Your task to perform on an android device: toggle notifications settings in the gmail app Image 0: 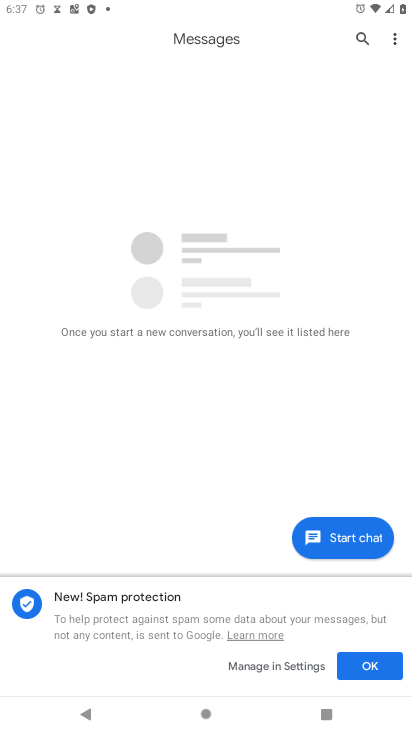
Step 0: press home button
Your task to perform on an android device: toggle notifications settings in the gmail app Image 1: 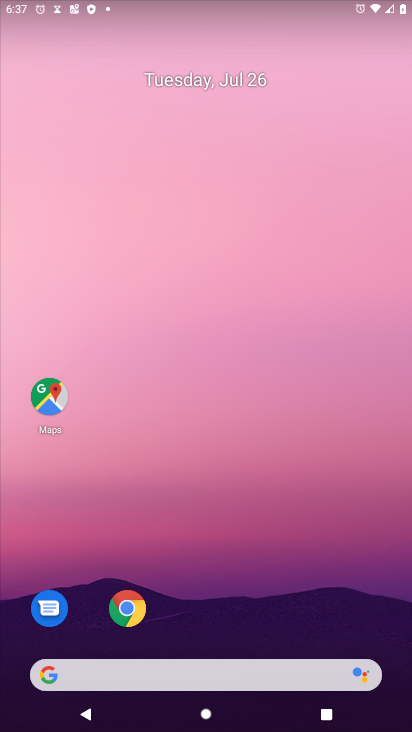
Step 1: drag from (231, 618) to (284, 30)
Your task to perform on an android device: toggle notifications settings in the gmail app Image 2: 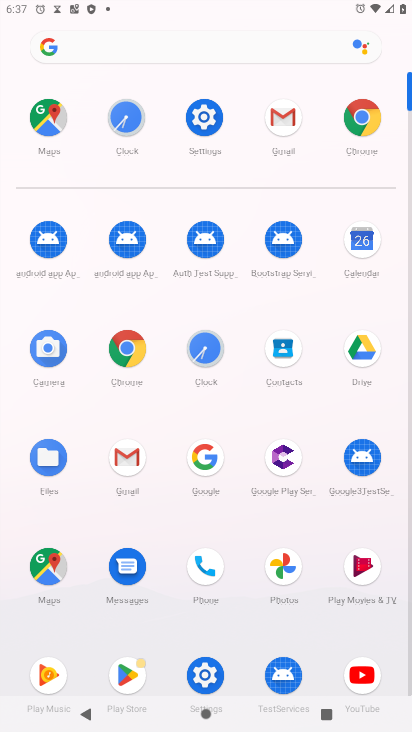
Step 2: click (272, 120)
Your task to perform on an android device: toggle notifications settings in the gmail app Image 3: 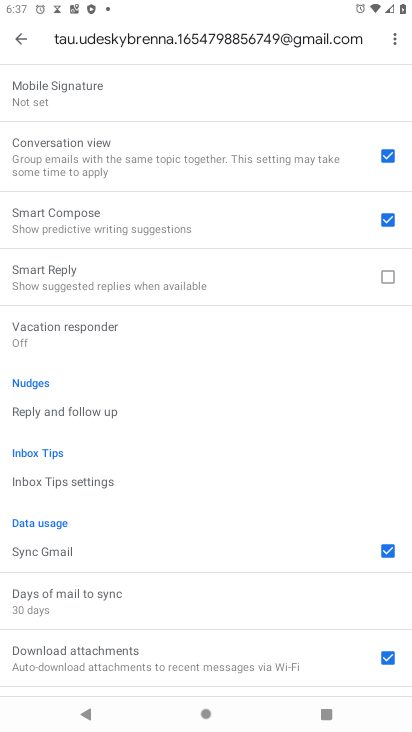
Step 3: drag from (175, 100) to (157, 603)
Your task to perform on an android device: toggle notifications settings in the gmail app Image 4: 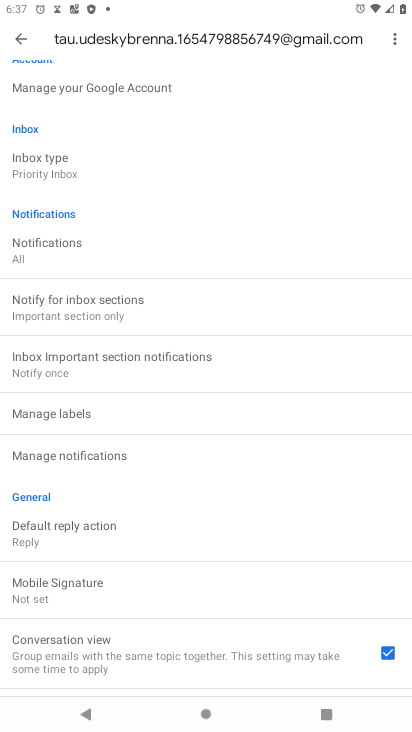
Step 4: click (60, 451)
Your task to perform on an android device: toggle notifications settings in the gmail app Image 5: 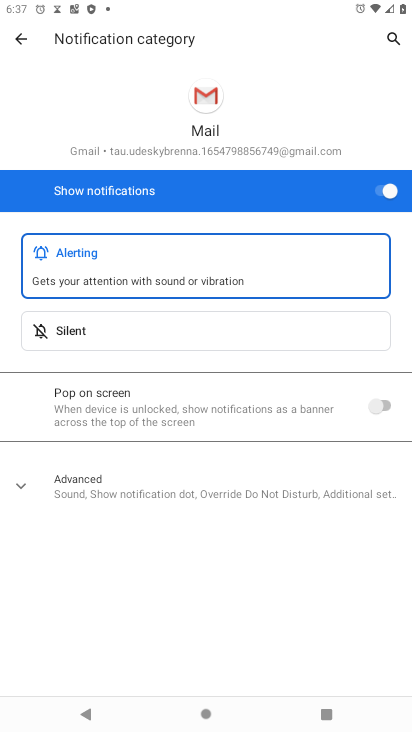
Step 5: click (397, 187)
Your task to perform on an android device: toggle notifications settings in the gmail app Image 6: 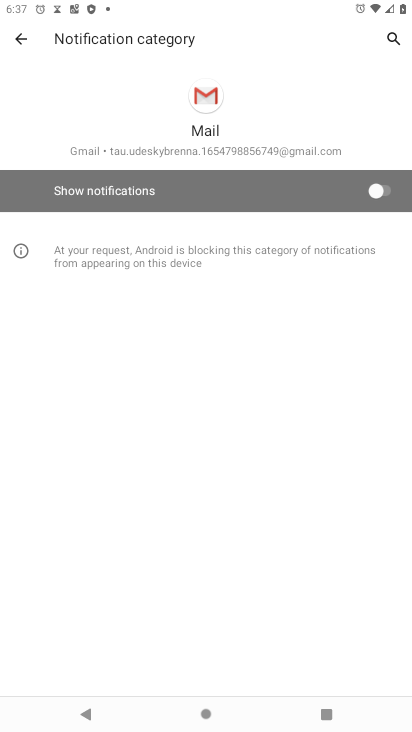
Step 6: task complete